Your task to perform on an android device: Open Maps and search for coffee Image 0: 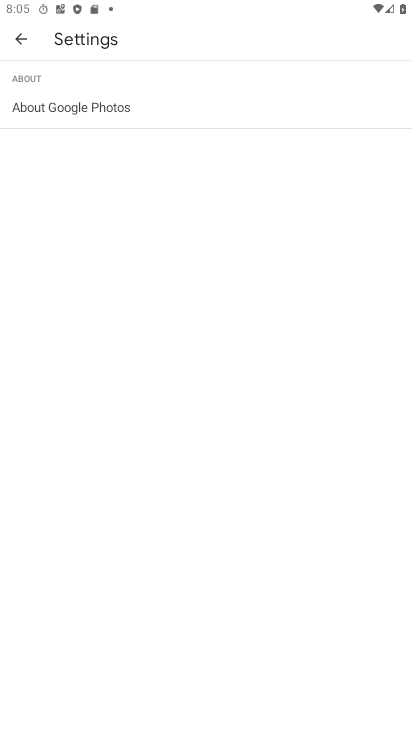
Step 0: press home button
Your task to perform on an android device: Open Maps and search for coffee Image 1: 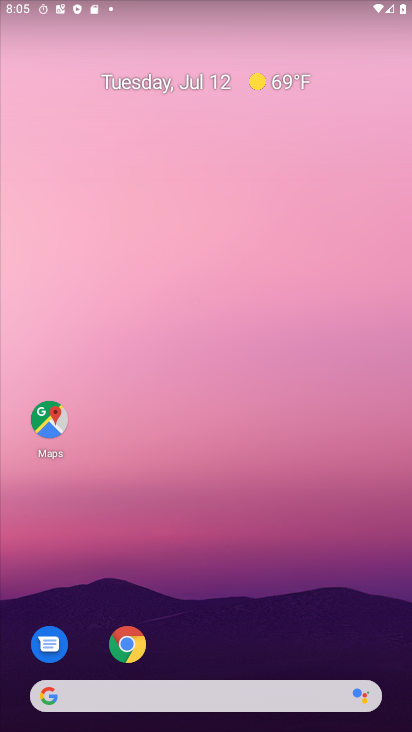
Step 1: click (47, 416)
Your task to perform on an android device: Open Maps and search for coffee Image 2: 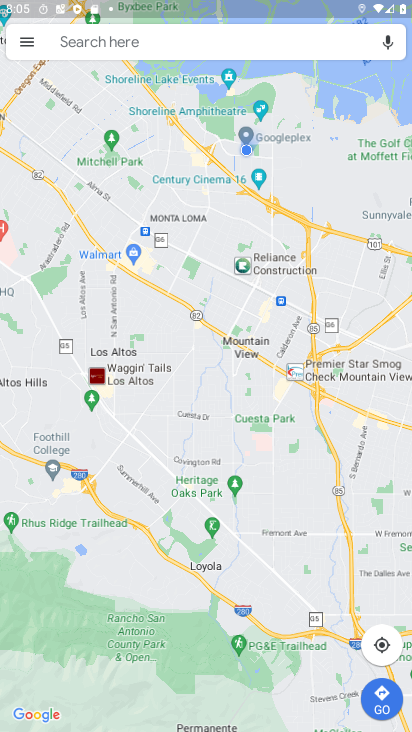
Step 2: click (126, 32)
Your task to perform on an android device: Open Maps and search for coffee Image 3: 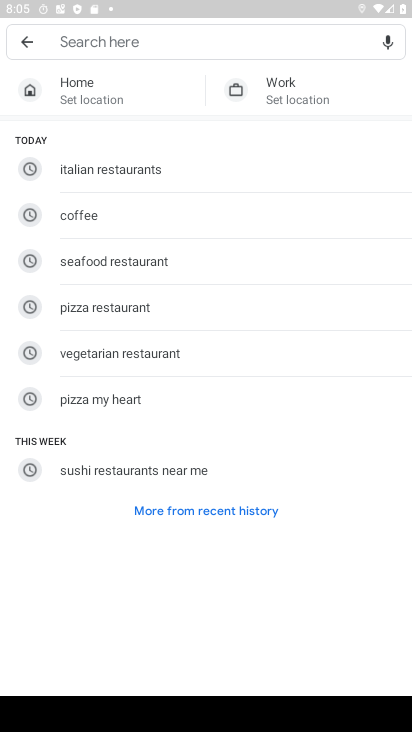
Step 3: click (94, 217)
Your task to perform on an android device: Open Maps and search for coffee Image 4: 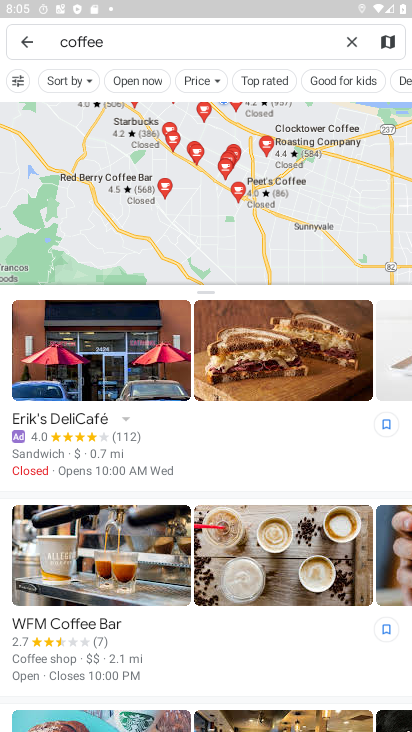
Step 4: task complete